Your task to perform on an android device: Is it going to rain tomorrow? Image 0: 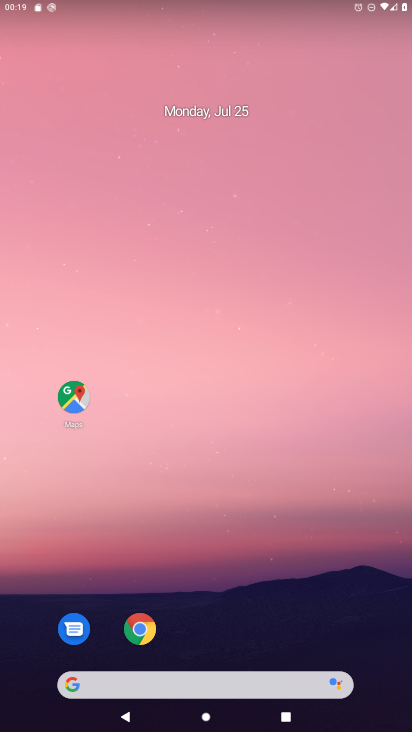
Step 0: drag from (190, 633) to (276, 90)
Your task to perform on an android device: Is it going to rain tomorrow? Image 1: 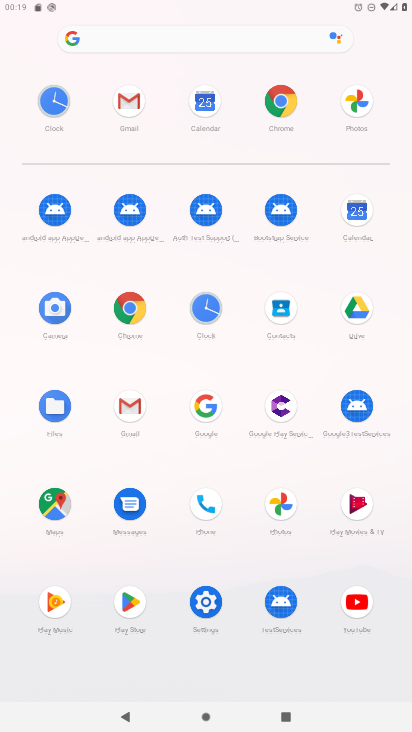
Step 1: click (125, 37)
Your task to perform on an android device: Is it going to rain tomorrow? Image 2: 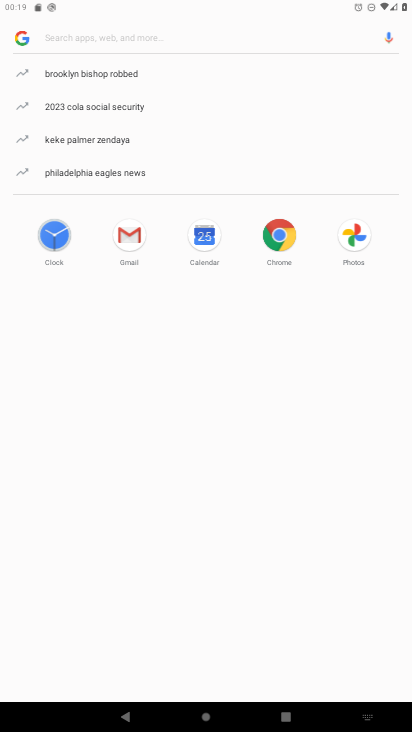
Step 2: type "rain tomorrow?"
Your task to perform on an android device: Is it going to rain tomorrow? Image 3: 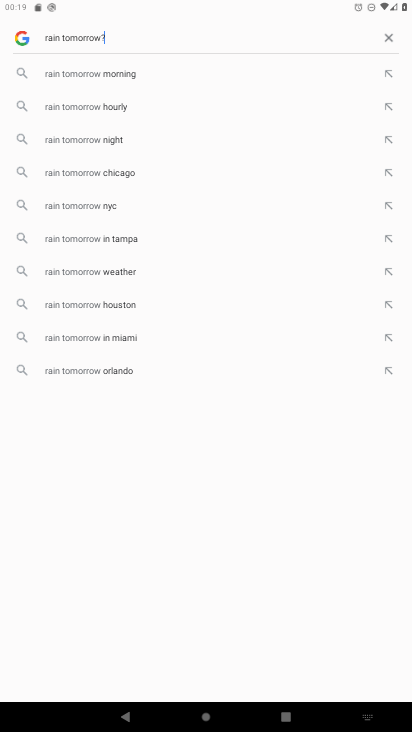
Step 3: type ""
Your task to perform on an android device: Is it going to rain tomorrow? Image 4: 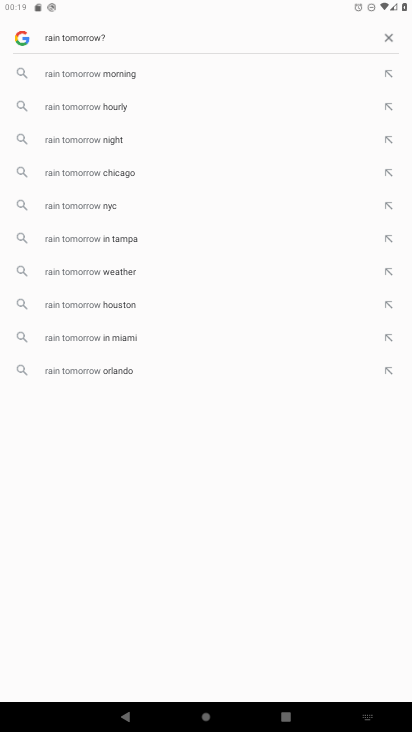
Step 4: click (60, 72)
Your task to perform on an android device: Is it going to rain tomorrow? Image 5: 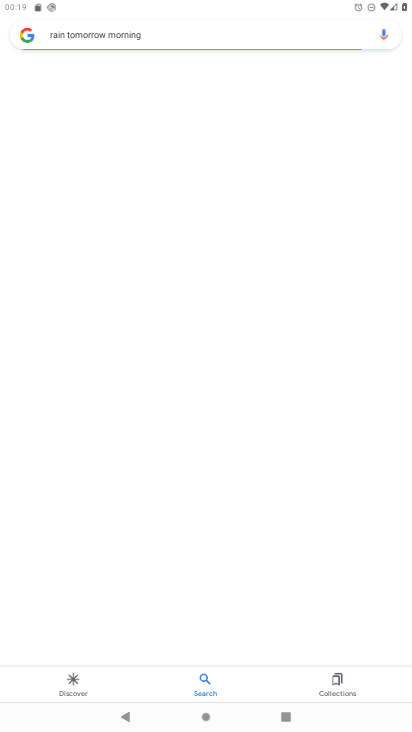
Step 5: task complete